Your task to perform on an android device: open app "VLC for Android" (install if not already installed) Image 0: 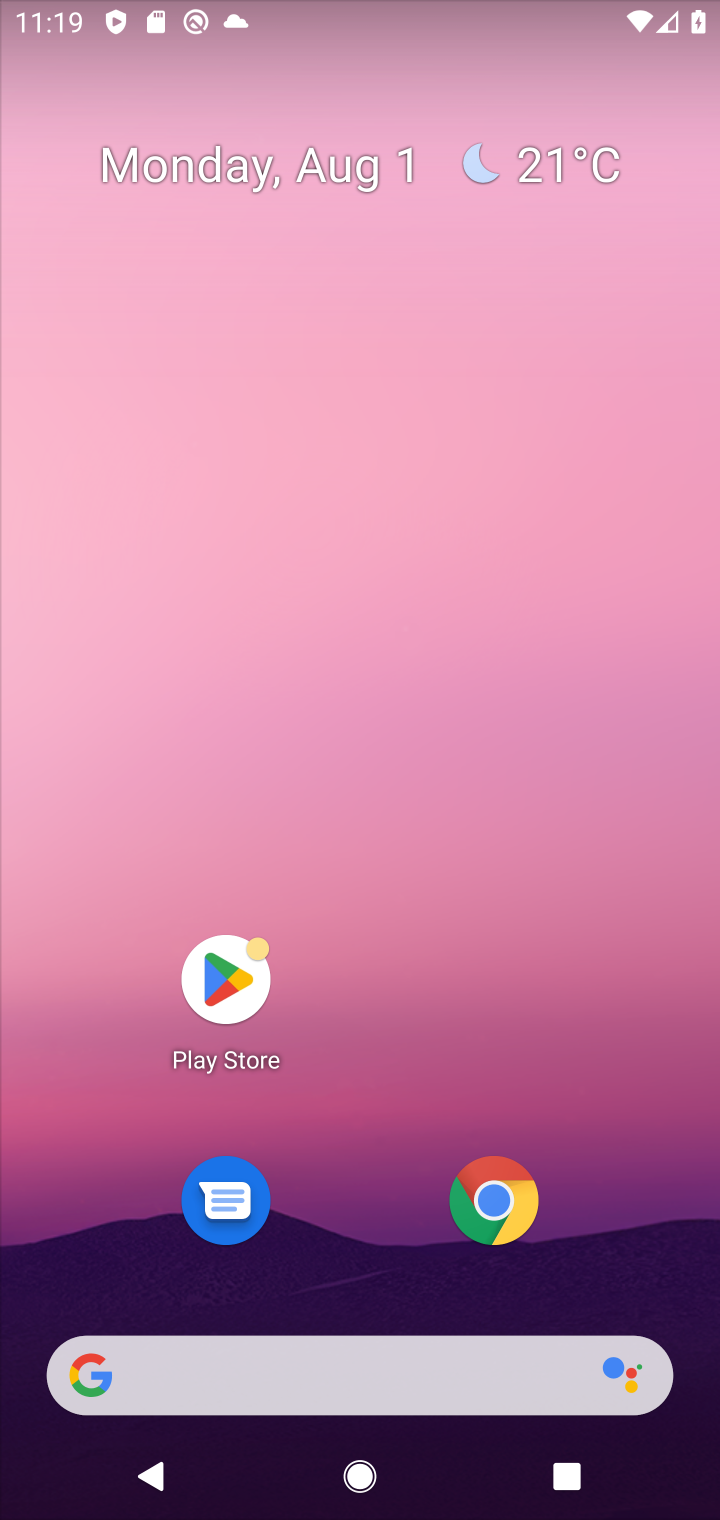
Step 0: click (239, 935)
Your task to perform on an android device: open app "VLC for Android" (install if not already installed) Image 1: 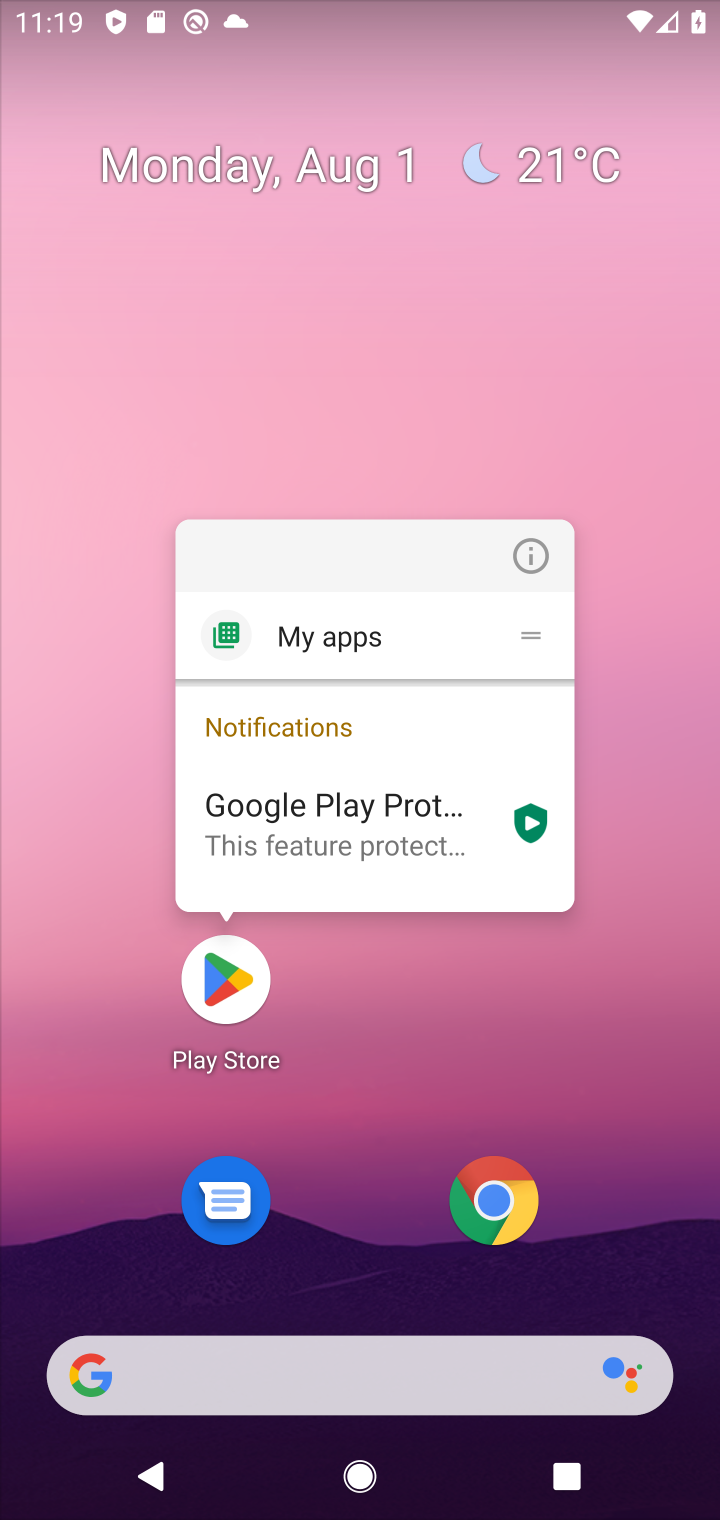
Step 1: click (229, 991)
Your task to perform on an android device: open app "VLC for Android" (install if not already installed) Image 2: 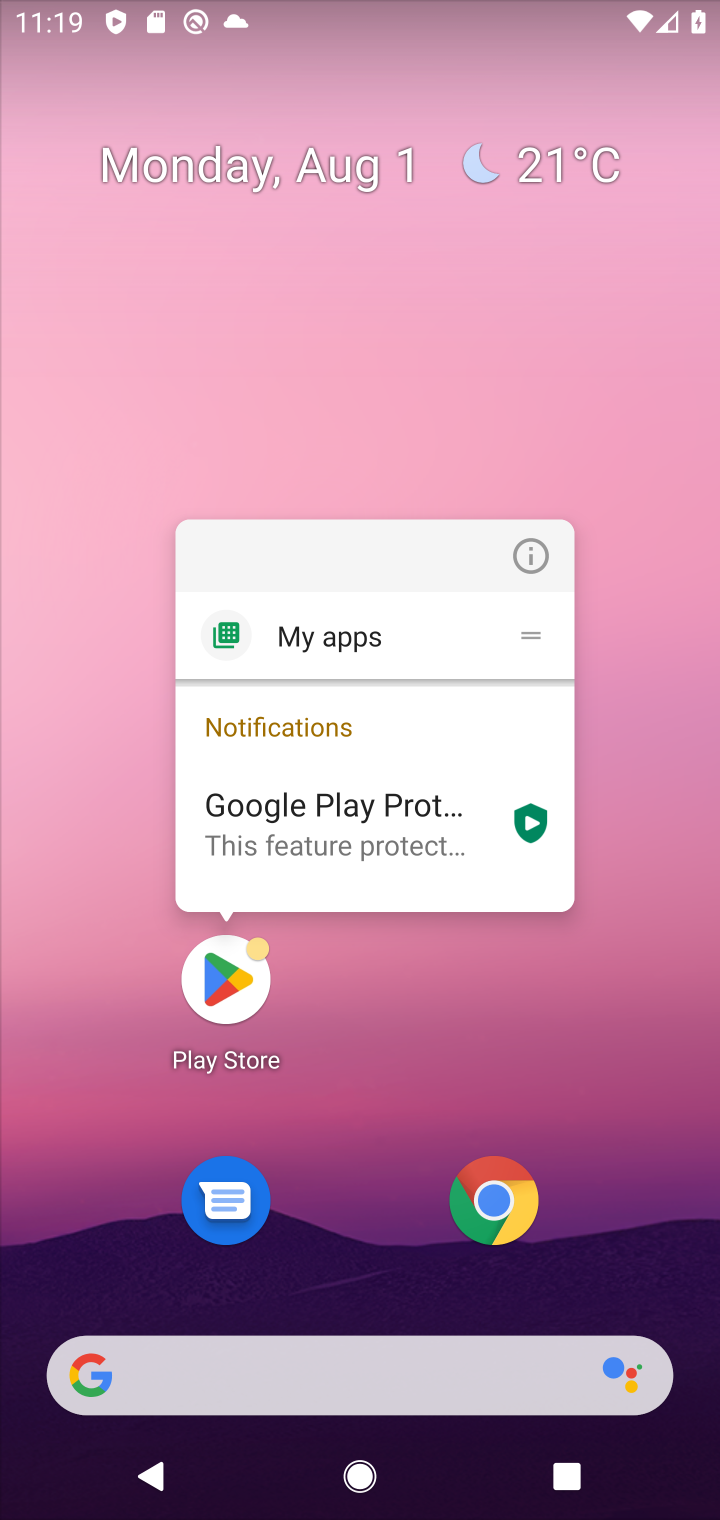
Step 2: click (229, 991)
Your task to perform on an android device: open app "VLC for Android" (install if not already installed) Image 3: 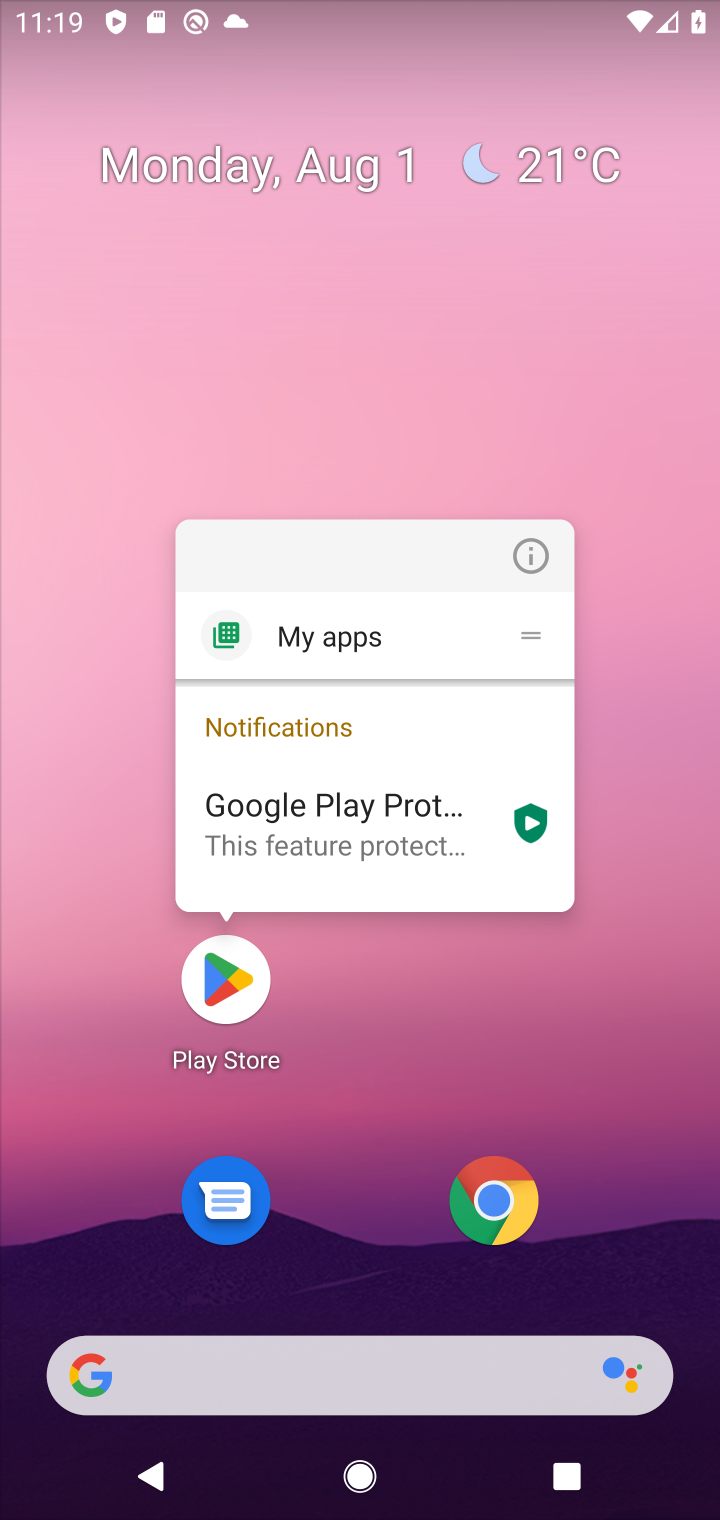
Step 3: click (229, 991)
Your task to perform on an android device: open app "VLC for Android" (install if not already installed) Image 4: 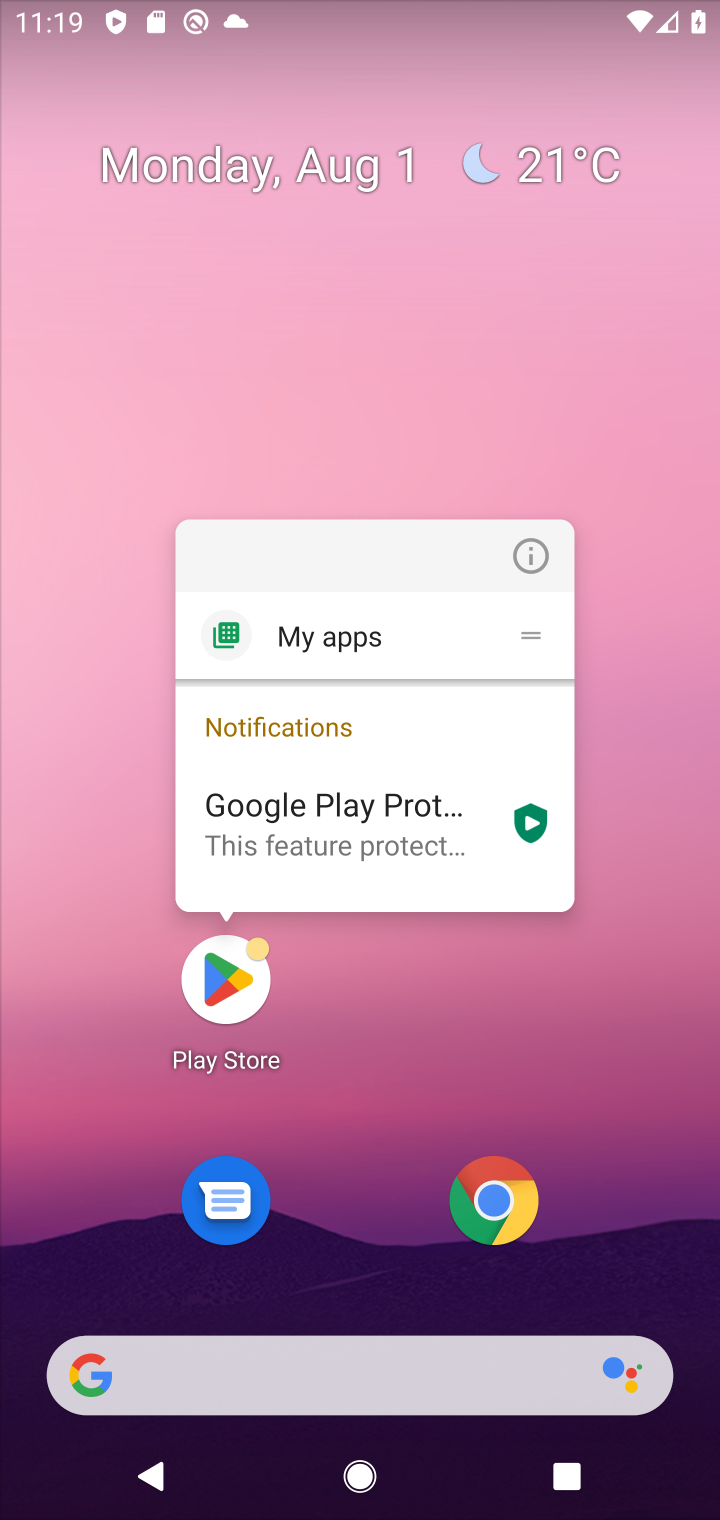
Step 4: click (229, 991)
Your task to perform on an android device: open app "VLC for Android" (install if not already installed) Image 5: 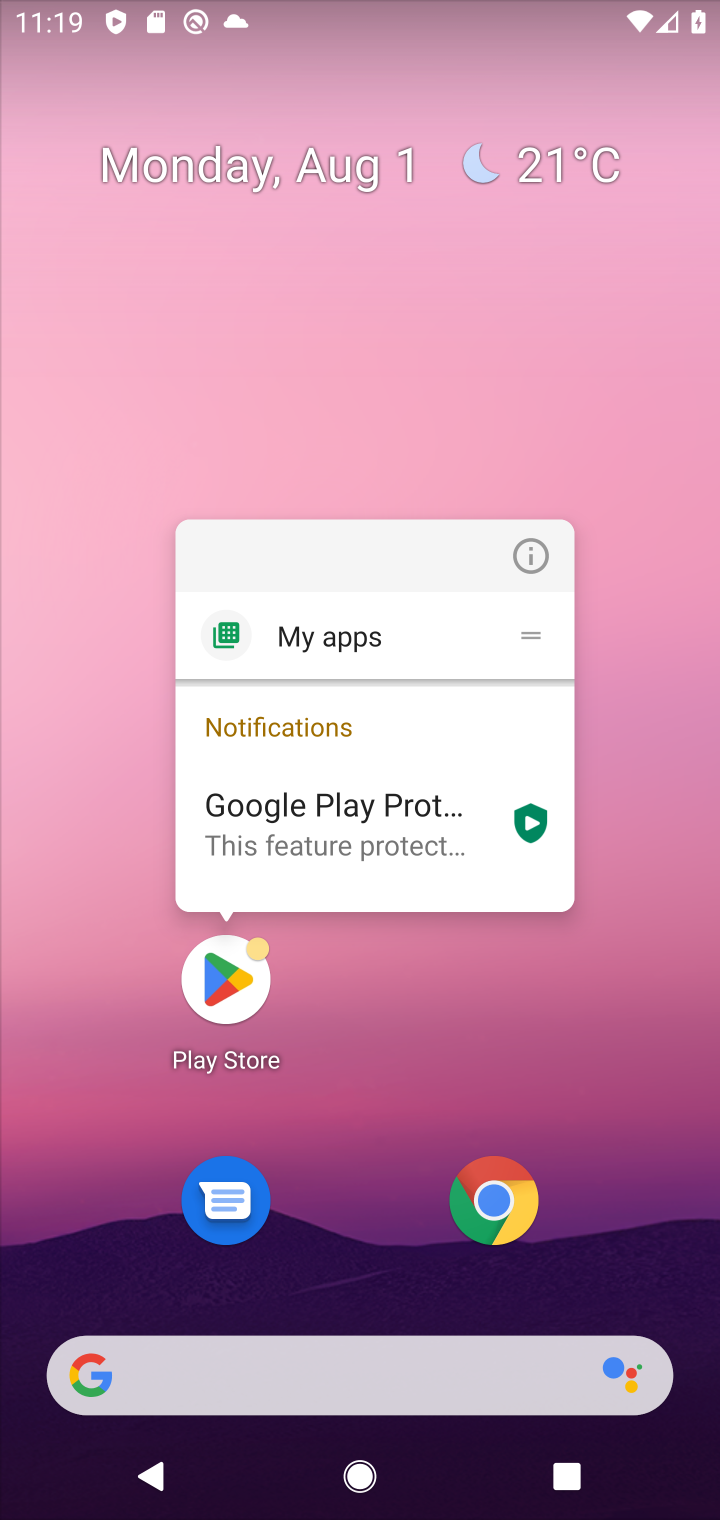
Step 5: click (229, 991)
Your task to perform on an android device: open app "VLC for Android" (install if not already installed) Image 6: 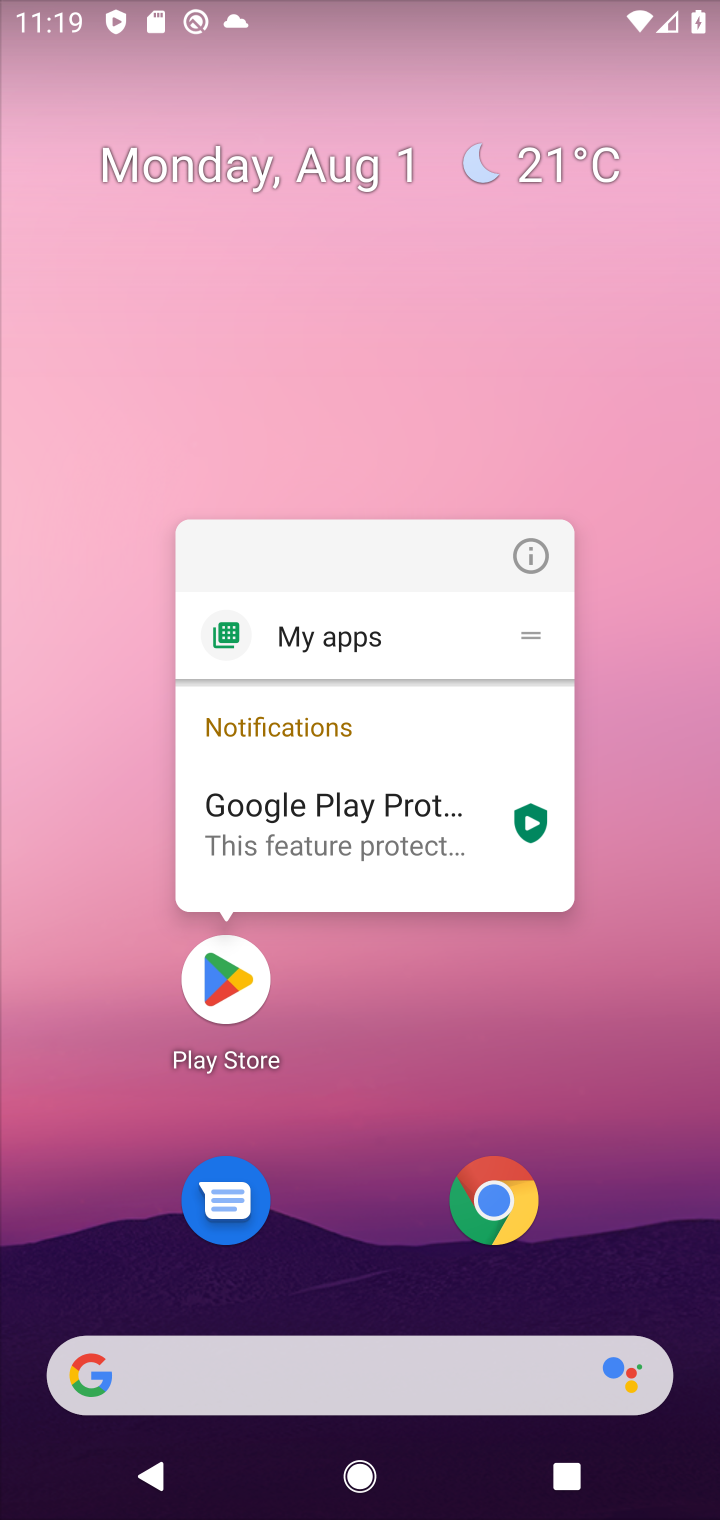
Step 6: click (229, 991)
Your task to perform on an android device: open app "VLC for Android" (install if not already installed) Image 7: 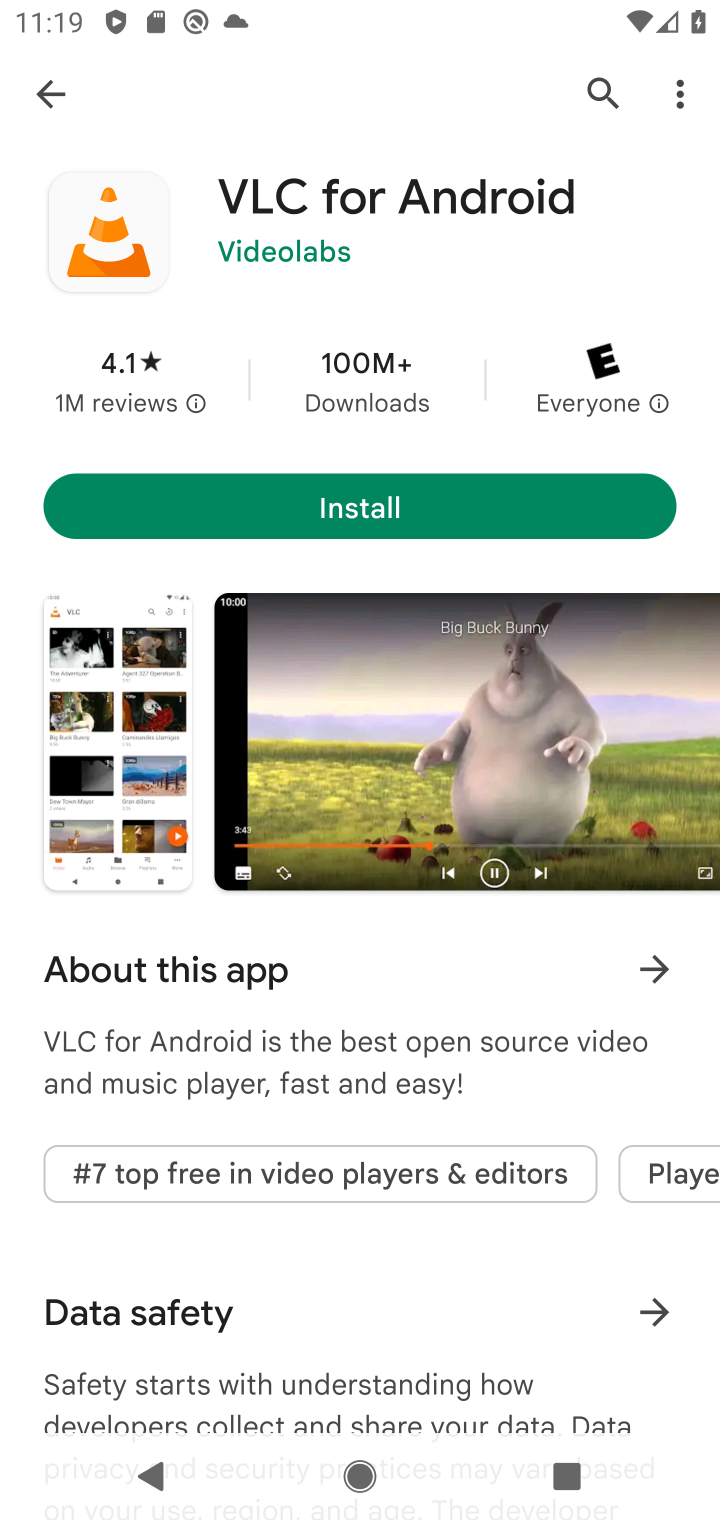
Step 7: click (592, 92)
Your task to perform on an android device: open app "VLC for Android" (install if not already installed) Image 8: 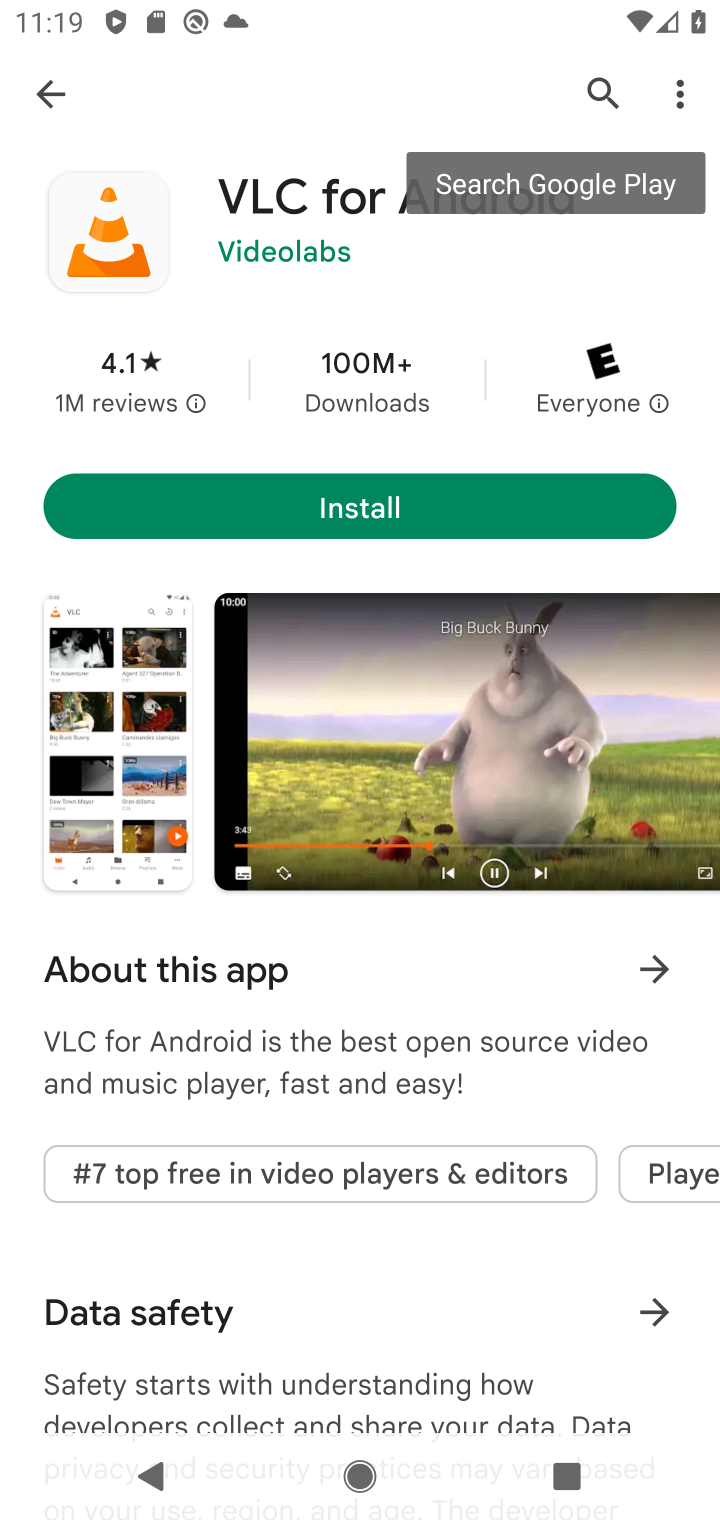
Step 8: click (592, 89)
Your task to perform on an android device: open app "VLC for Android" (install if not already installed) Image 9: 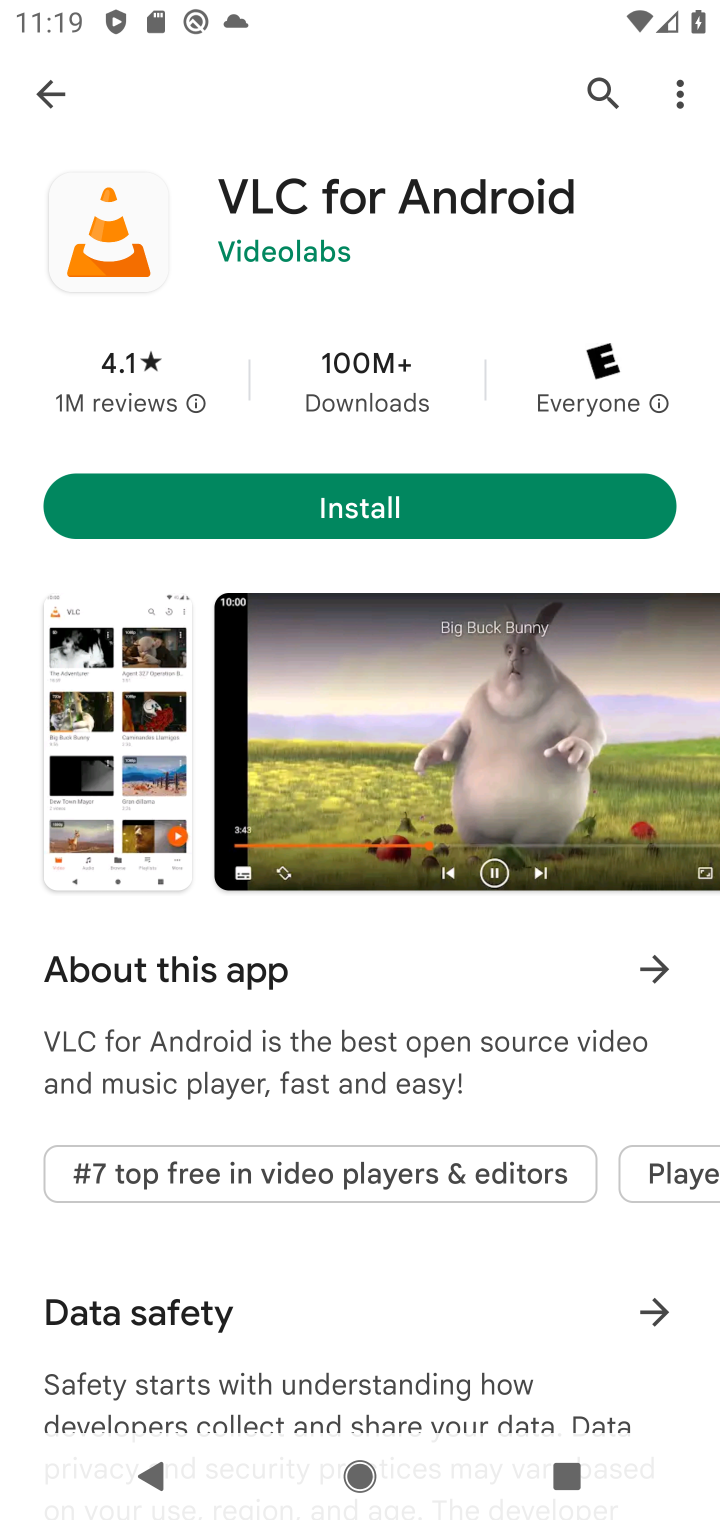
Step 9: click (601, 87)
Your task to perform on an android device: open app "VLC for Android" (install if not already installed) Image 10: 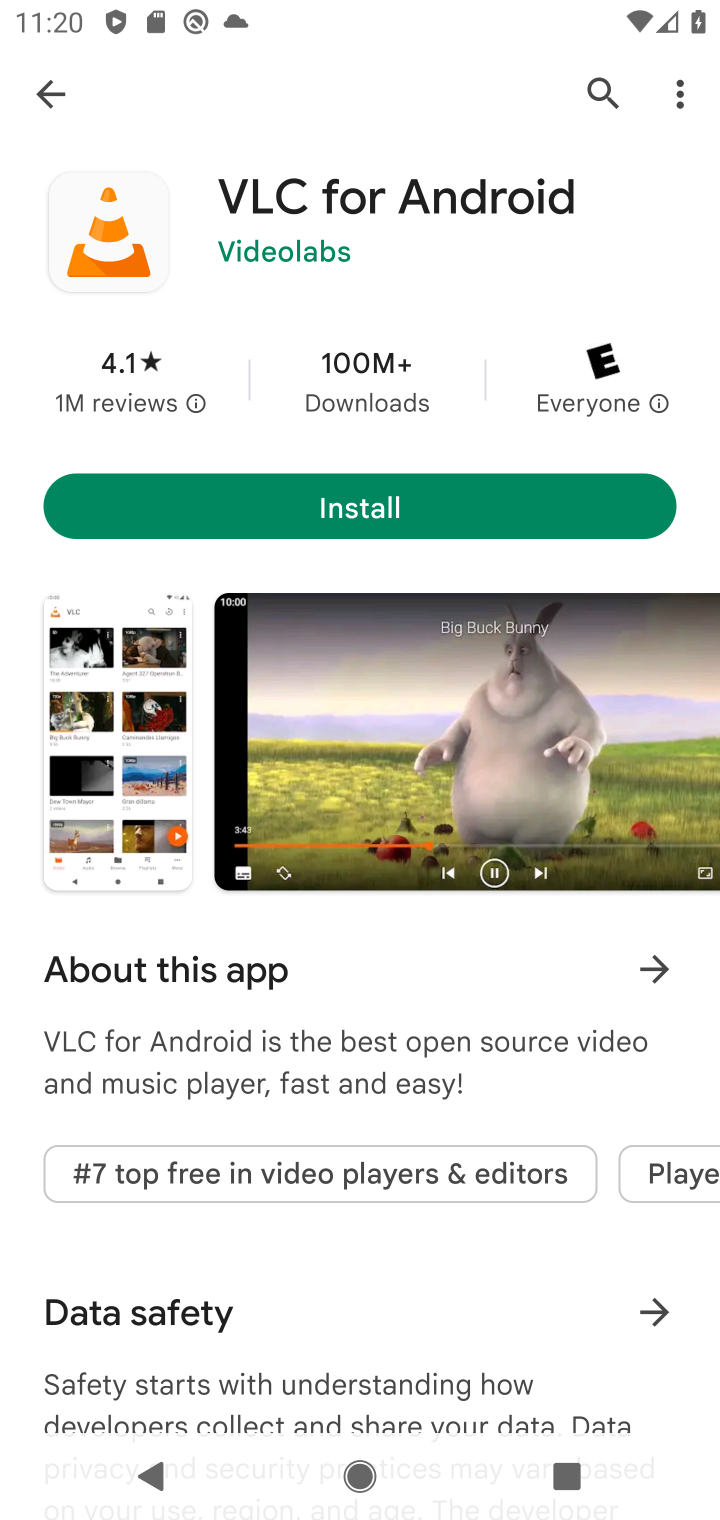
Step 10: click (599, 88)
Your task to perform on an android device: open app "VLC for Android" (install if not already installed) Image 11: 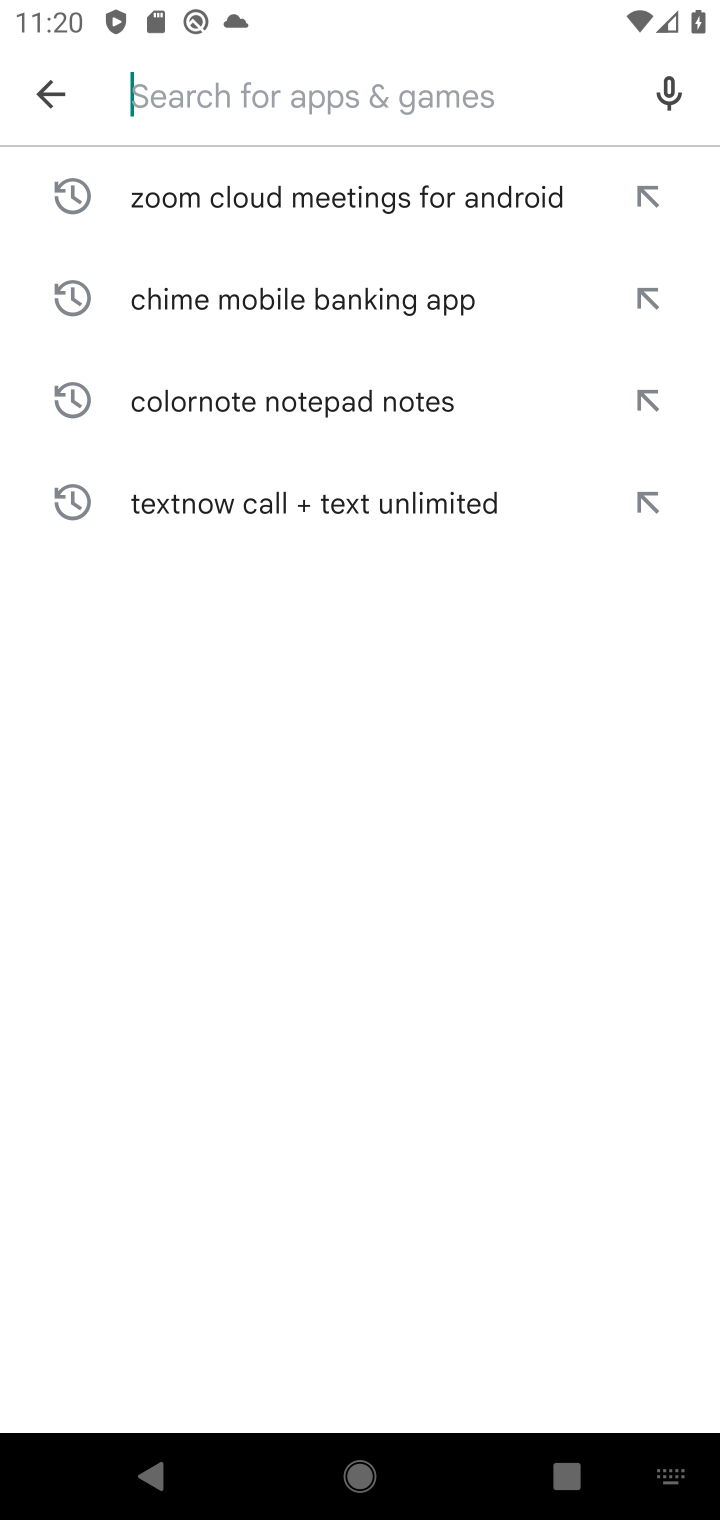
Step 11: type "VLC for Android"
Your task to perform on an android device: open app "VLC for Android" (install if not already installed) Image 12: 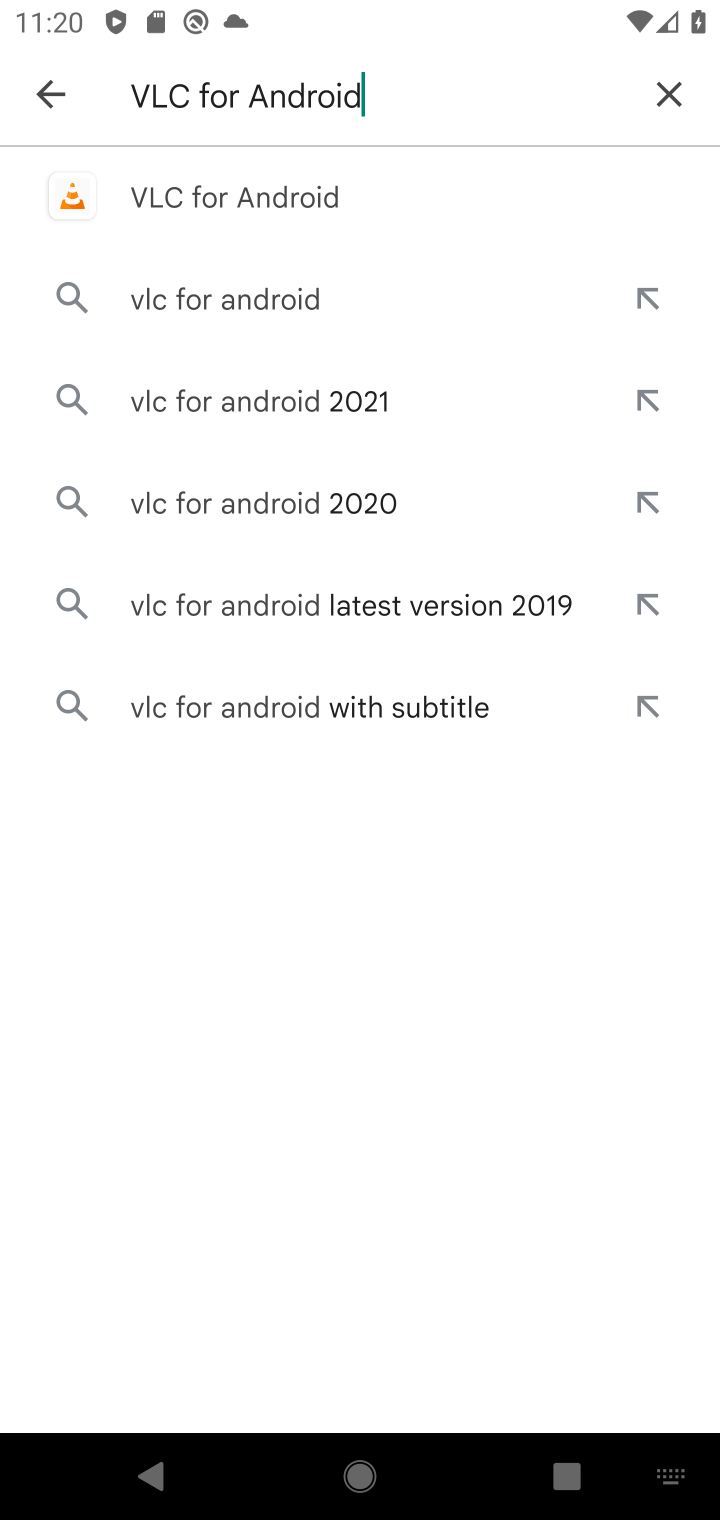
Step 12: click (230, 198)
Your task to perform on an android device: open app "VLC for Android" (install if not already installed) Image 13: 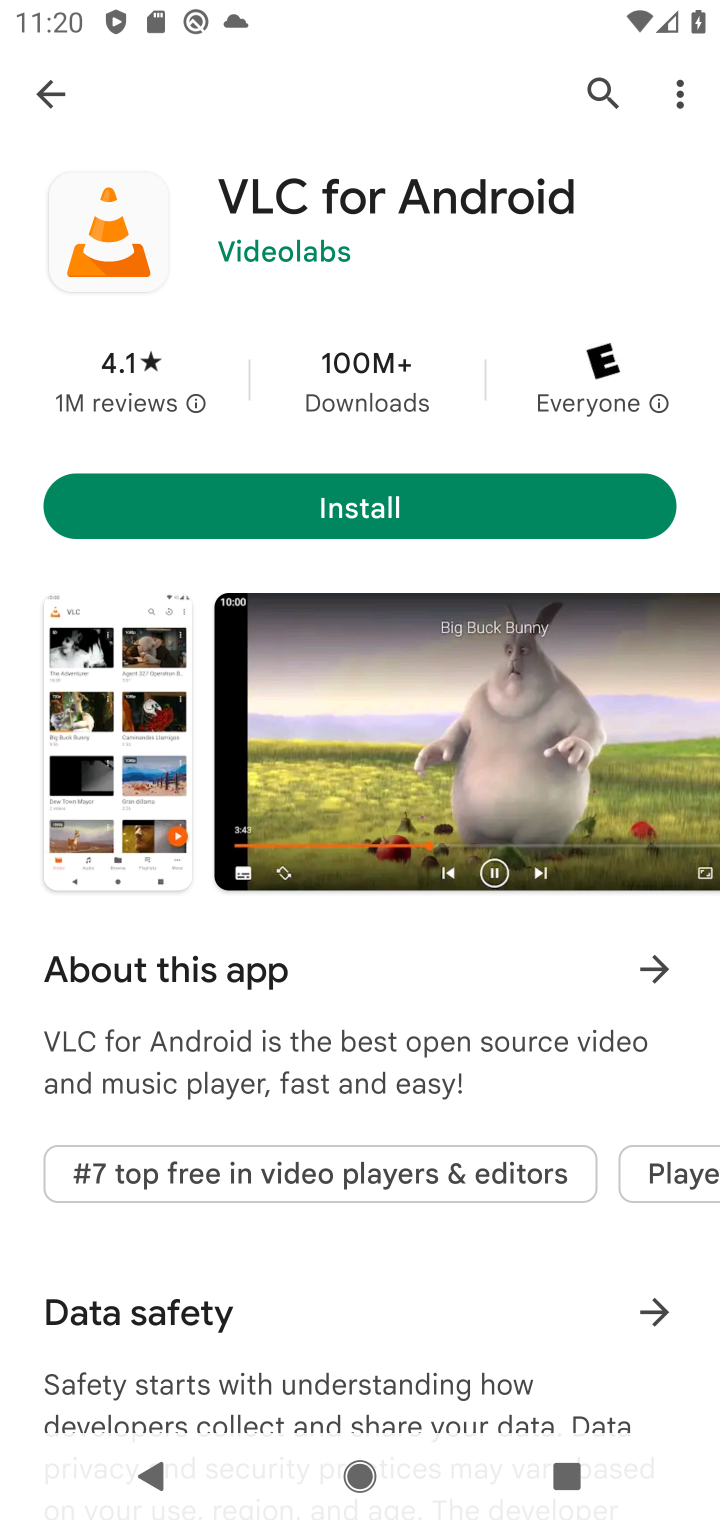
Step 13: click (373, 529)
Your task to perform on an android device: open app "VLC for Android" (install if not already installed) Image 14: 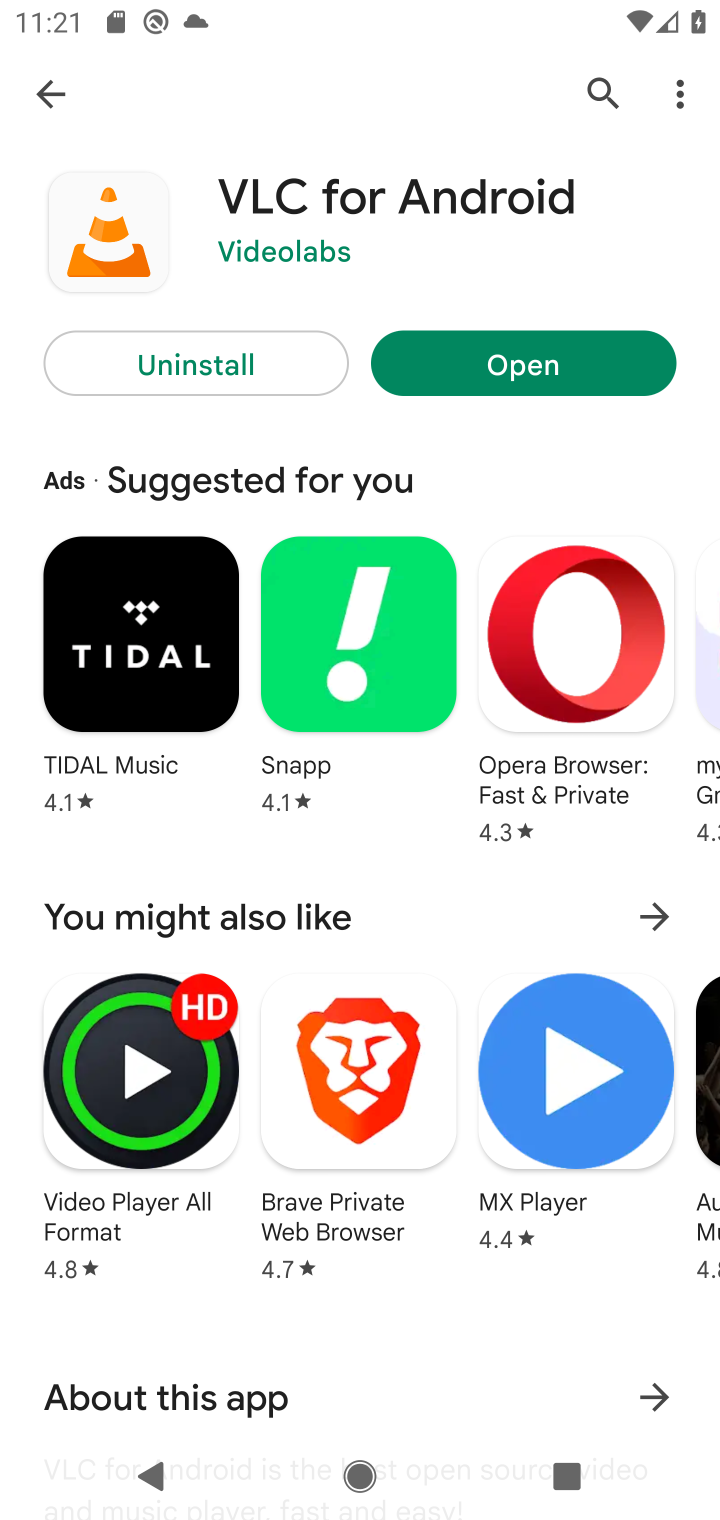
Step 14: click (461, 356)
Your task to perform on an android device: open app "VLC for Android" (install if not already installed) Image 15: 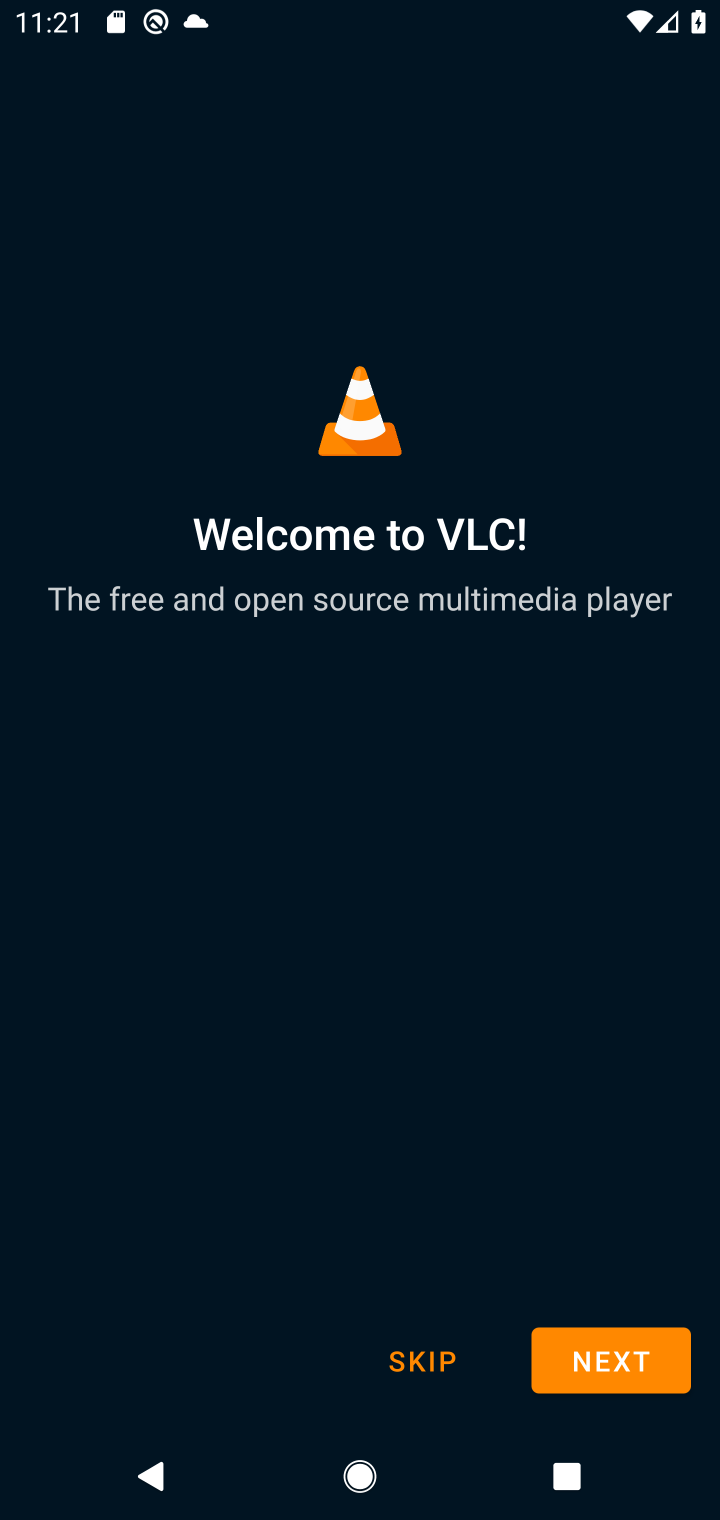
Step 15: task complete